Your task to perform on an android device: Go to location settings Image 0: 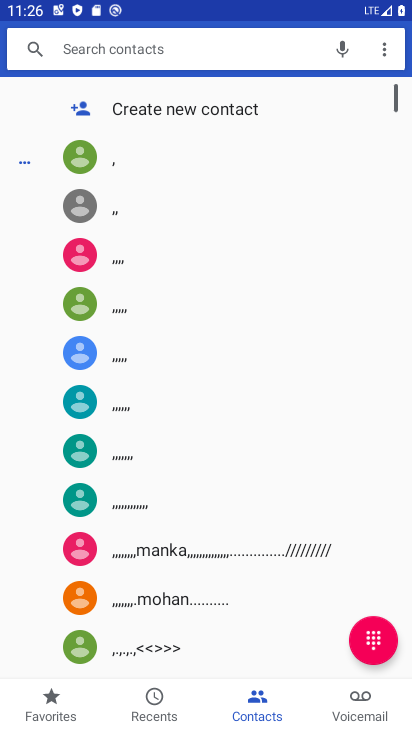
Step 0: press home button
Your task to perform on an android device: Go to location settings Image 1: 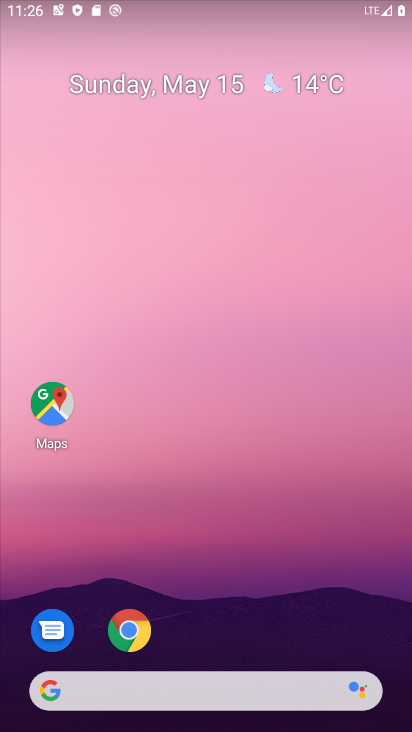
Step 1: drag from (87, 471) to (261, 189)
Your task to perform on an android device: Go to location settings Image 2: 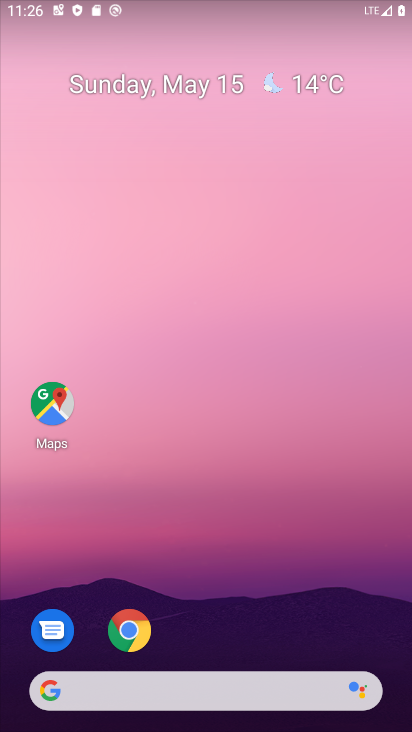
Step 2: drag from (19, 589) to (306, 130)
Your task to perform on an android device: Go to location settings Image 3: 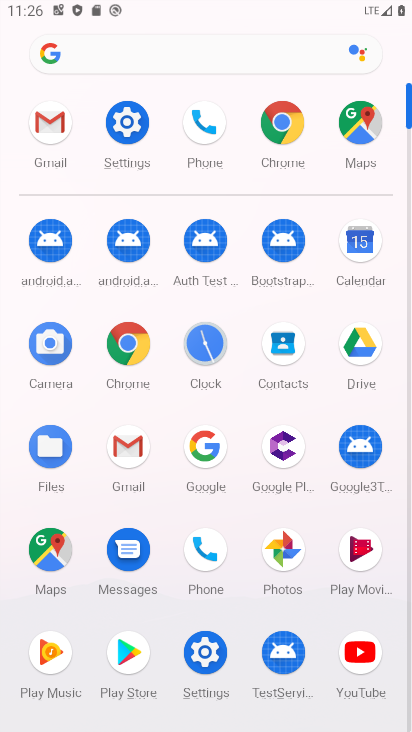
Step 3: click (129, 125)
Your task to perform on an android device: Go to location settings Image 4: 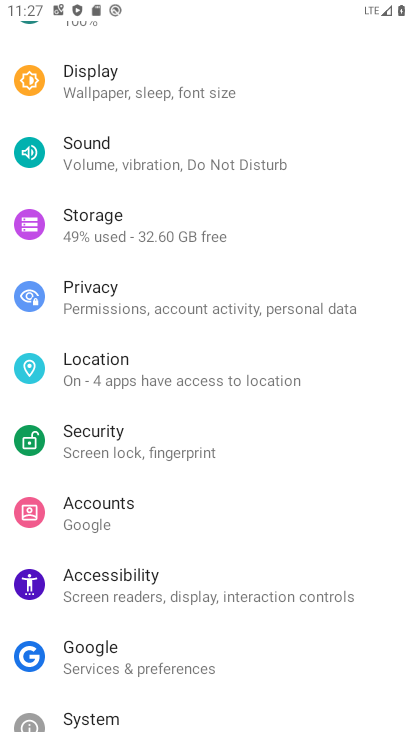
Step 4: click (171, 381)
Your task to perform on an android device: Go to location settings Image 5: 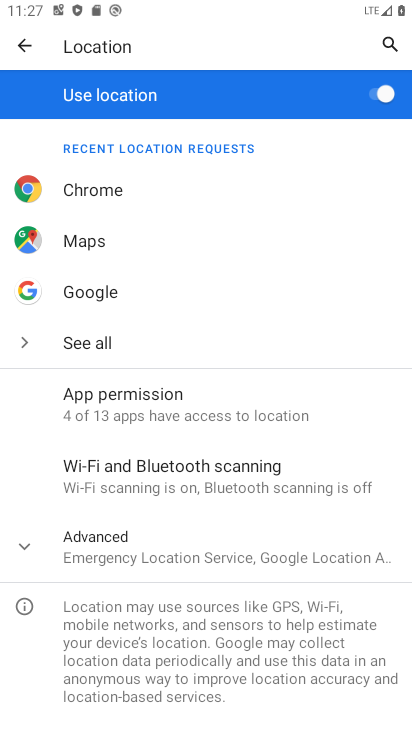
Step 5: task complete